Your task to perform on an android device: change notifications settings Image 0: 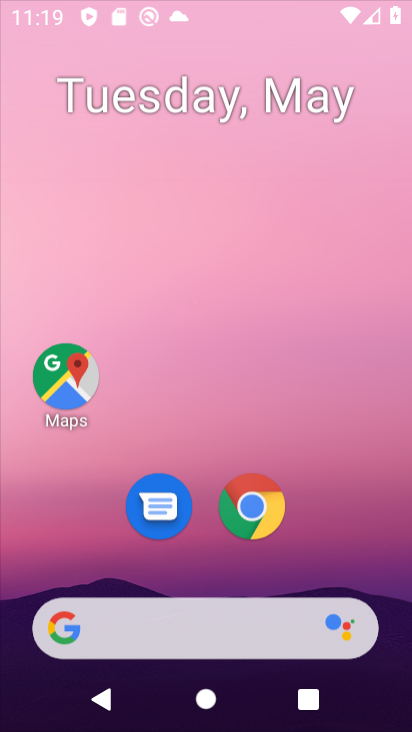
Step 0: click (170, 175)
Your task to perform on an android device: change notifications settings Image 1: 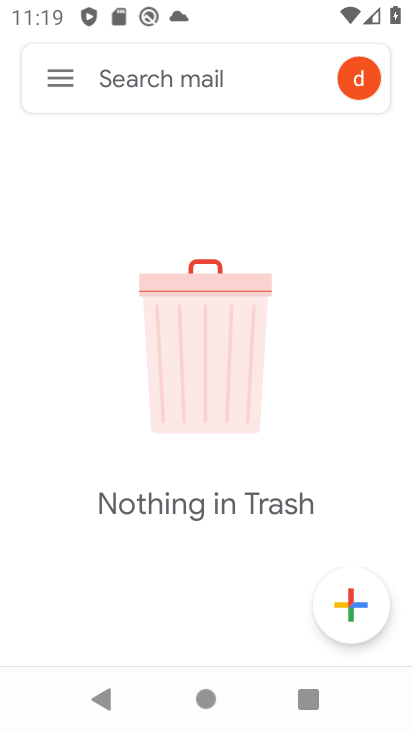
Step 1: press back button
Your task to perform on an android device: change notifications settings Image 2: 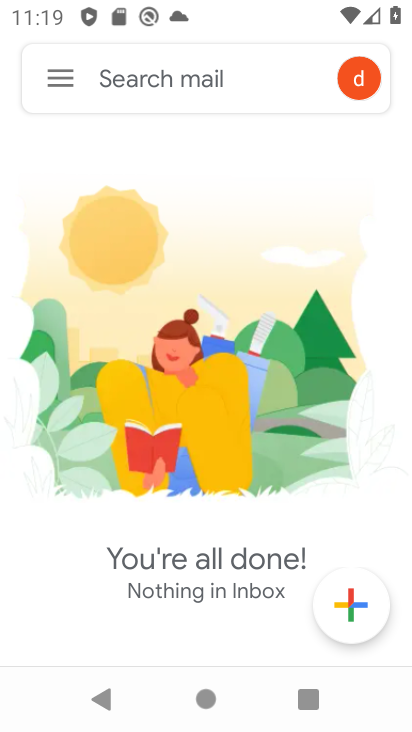
Step 2: press back button
Your task to perform on an android device: change notifications settings Image 3: 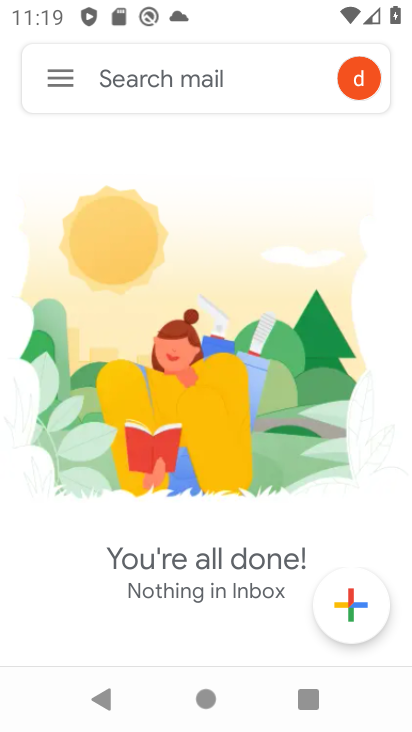
Step 3: press back button
Your task to perform on an android device: change notifications settings Image 4: 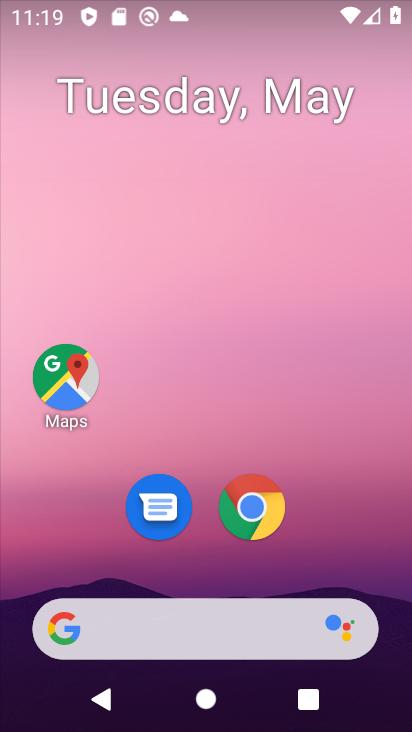
Step 4: drag from (240, 689) to (169, 118)
Your task to perform on an android device: change notifications settings Image 5: 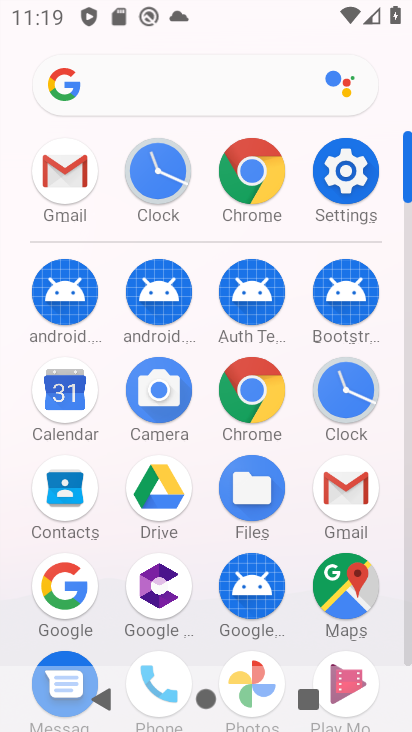
Step 5: click (345, 171)
Your task to perform on an android device: change notifications settings Image 6: 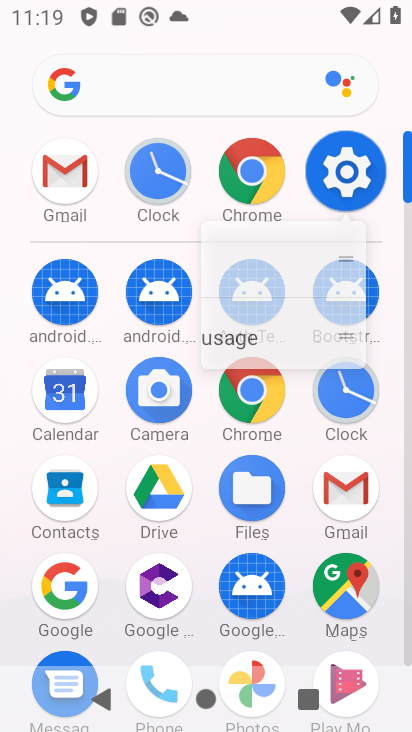
Step 6: click (347, 172)
Your task to perform on an android device: change notifications settings Image 7: 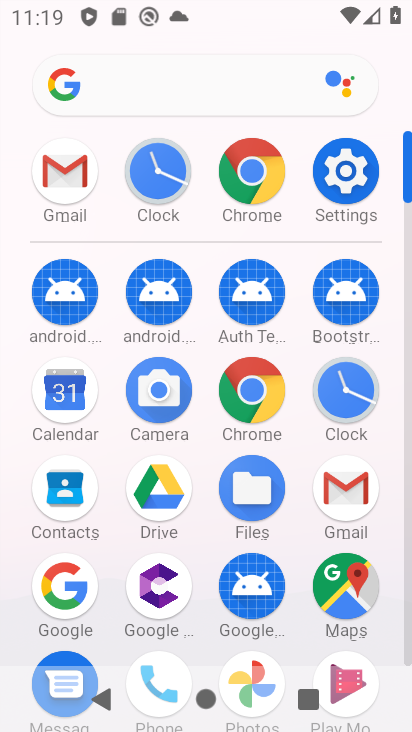
Step 7: click (347, 172)
Your task to perform on an android device: change notifications settings Image 8: 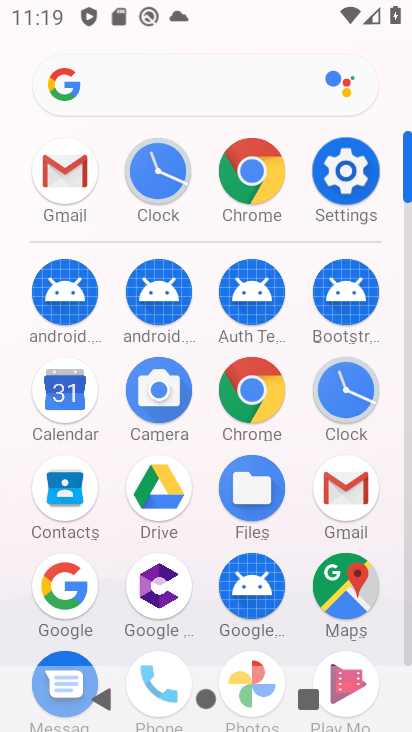
Step 8: click (347, 172)
Your task to perform on an android device: change notifications settings Image 9: 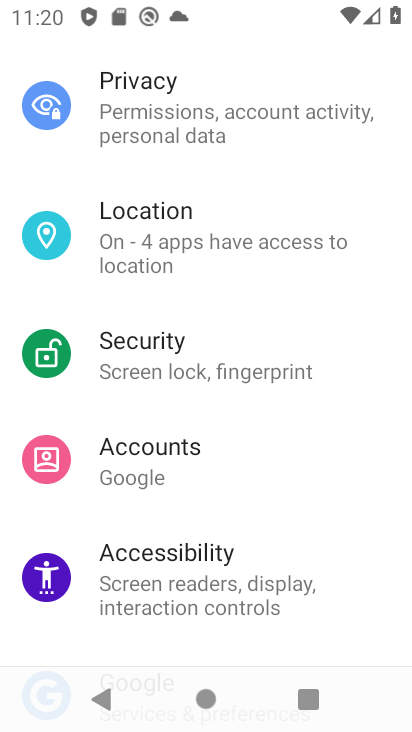
Step 9: drag from (159, 230) to (226, 663)
Your task to perform on an android device: change notifications settings Image 10: 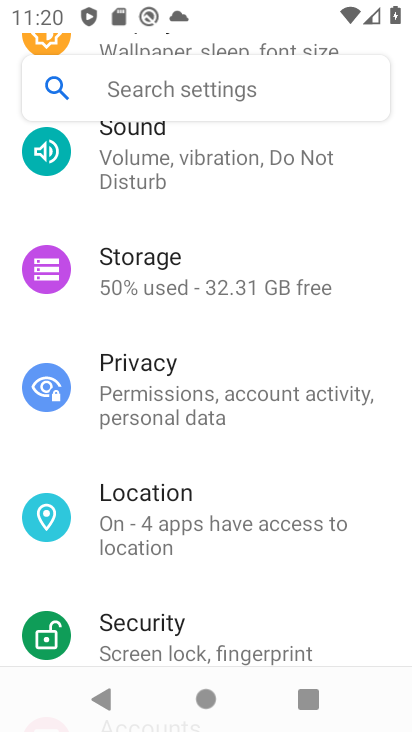
Step 10: drag from (128, 264) to (239, 635)
Your task to perform on an android device: change notifications settings Image 11: 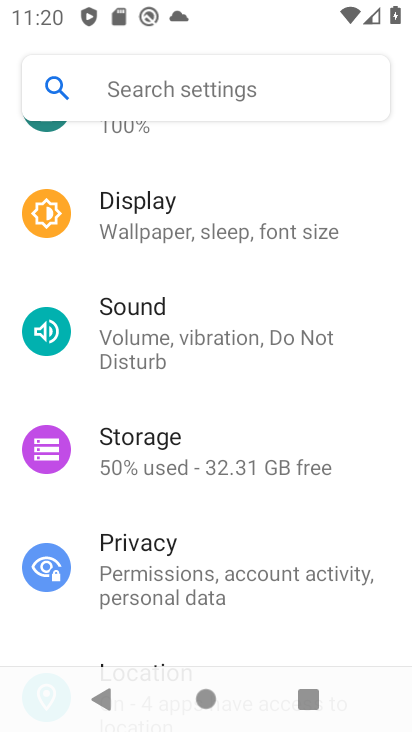
Step 11: click (158, 611)
Your task to perform on an android device: change notifications settings Image 12: 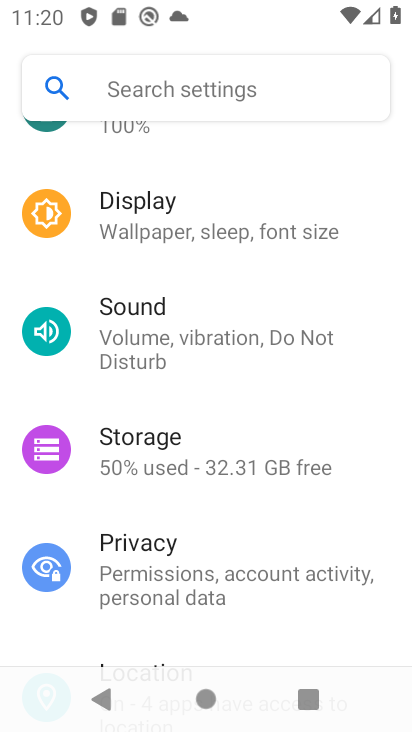
Step 12: drag from (78, 285) to (156, 633)
Your task to perform on an android device: change notifications settings Image 13: 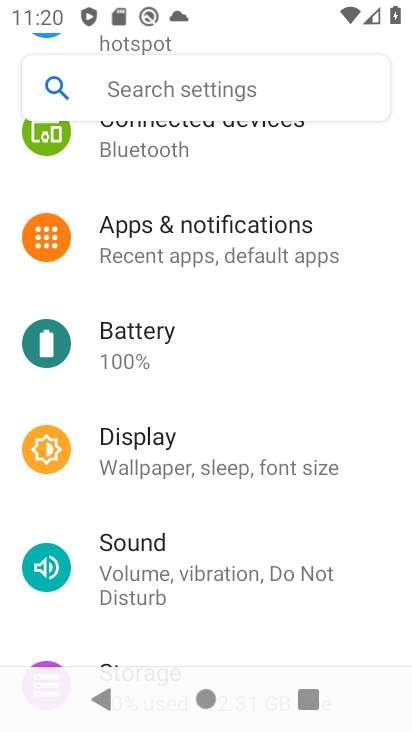
Step 13: drag from (158, 228) to (221, 656)
Your task to perform on an android device: change notifications settings Image 14: 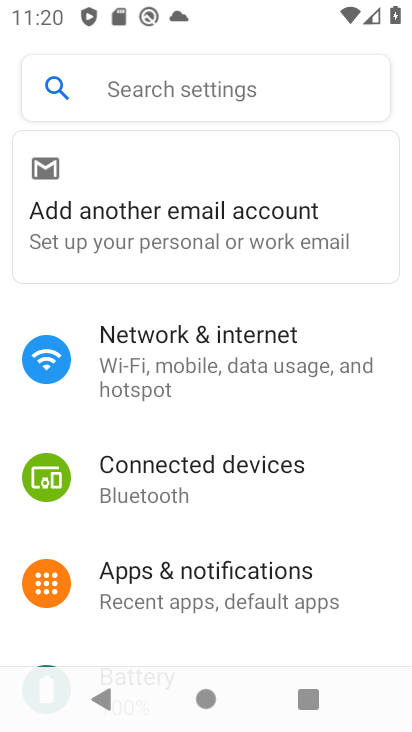
Step 14: drag from (185, 326) to (218, 593)
Your task to perform on an android device: change notifications settings Image 15: 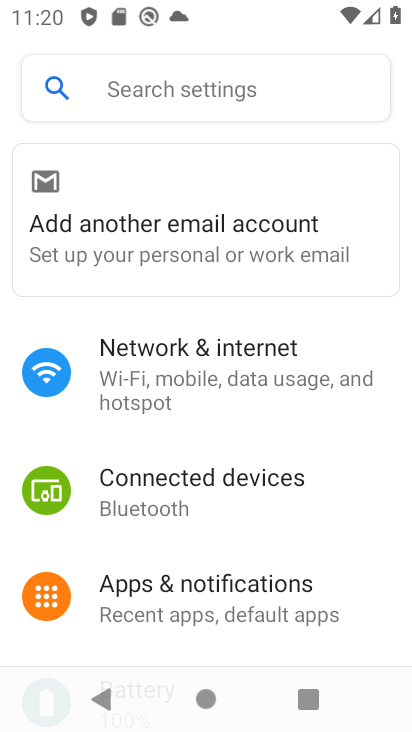
Step 15: click (165, 597)
Your task to perform on an android device: change notifications settings Image 16: 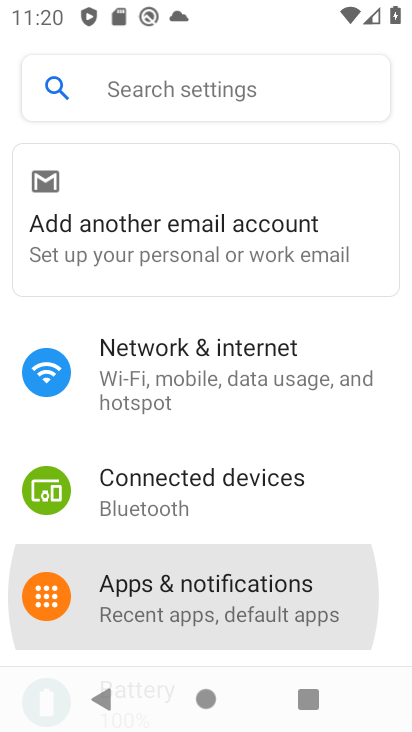
Step 16: click (167, 594)
Your task to perform on an android device: change notifications settings Image 17: 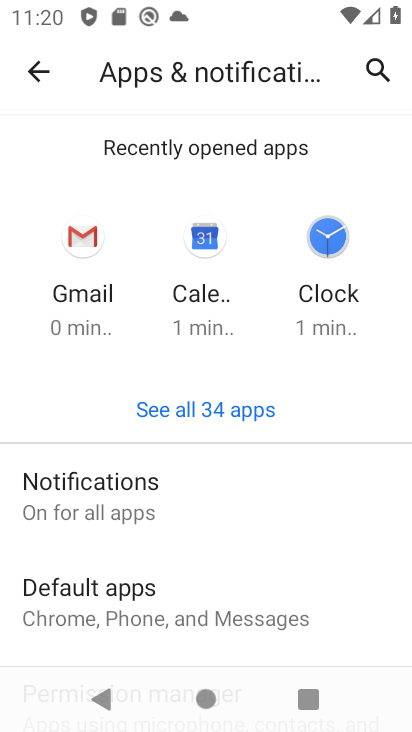
Step 17: click (77, 495)
Your task to perform on an android device: change notifications settings Image 18: 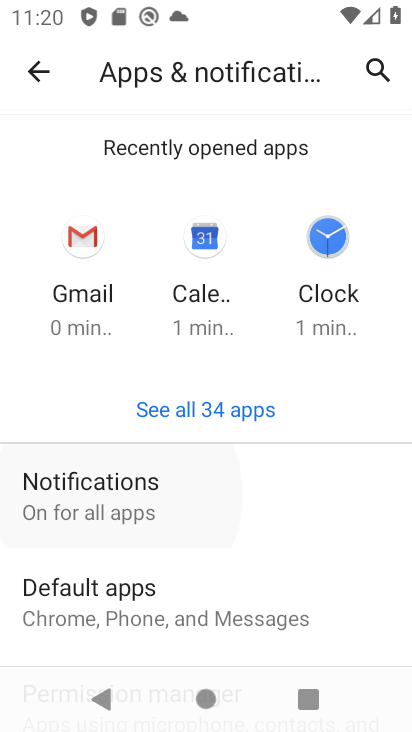
Step 18: click (76, 496)
Your task to perform on an android device: change notifications settings Image 19: 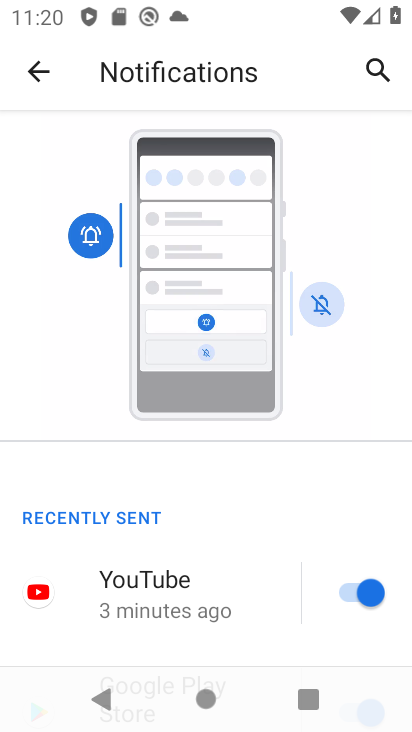
Step 19: drag from (221, 575) to (204, 130)
Your task to perform on an android device: change notifications settings Image 20: 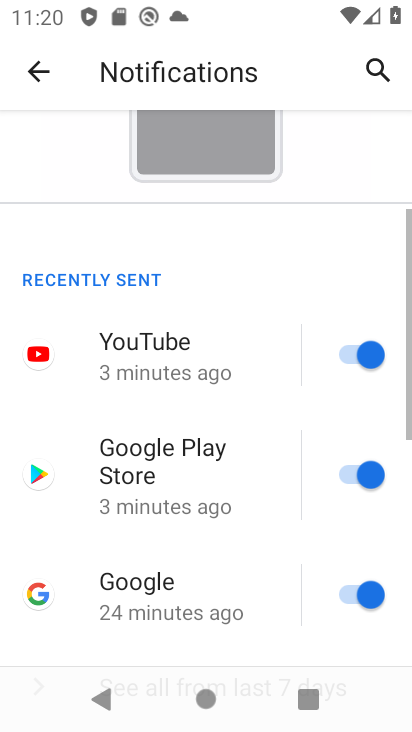
Step 20: drag from (229, 395) to (260, 151)
Your task to perform on an android device: change notifications settings Image 21: 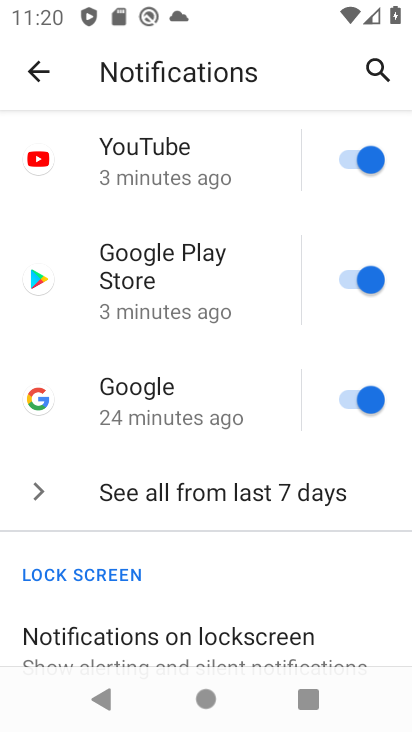
Step 21: click (361, 164)
Your task to perform on an android device: change notifications settings Image 22: 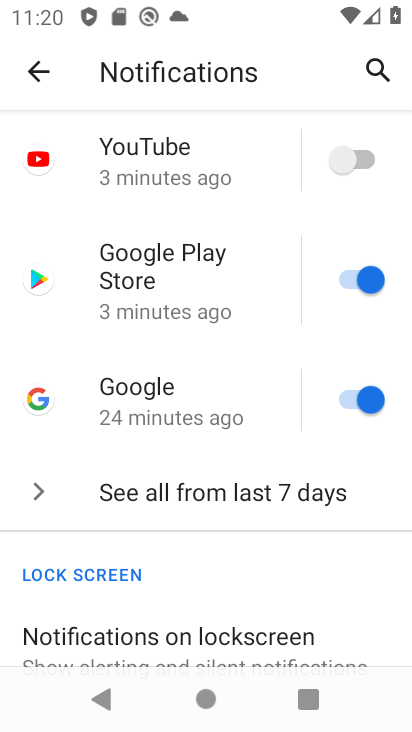
Step 22: click (367, 282)
Your task to perform on an android device: change notifications settings Image 23: 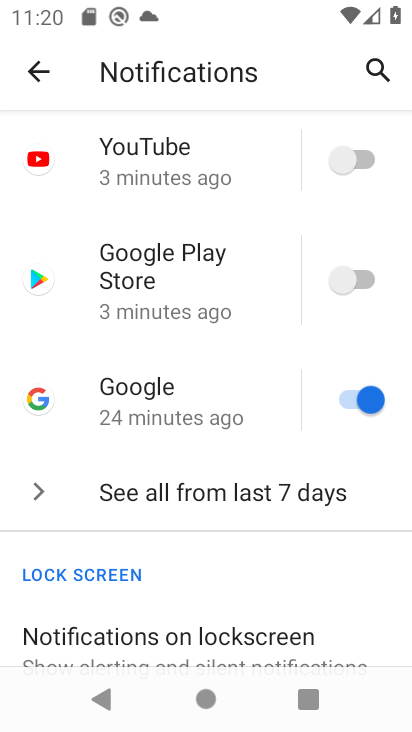
Step 23: click (372, 404)
Your task to perform on an android device: change notifications settings Image 24: 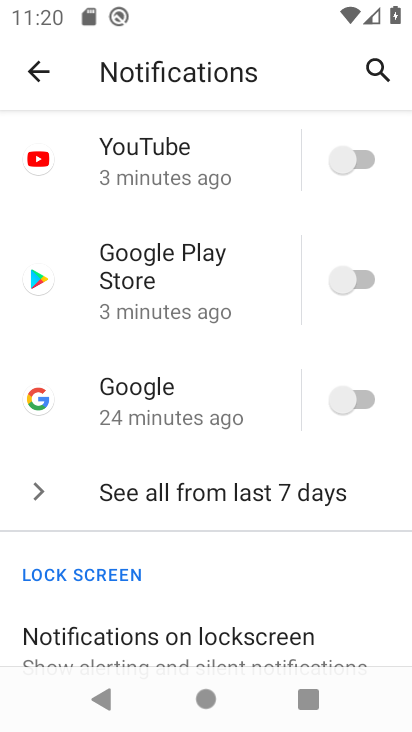
Step 24: task complete